Your task to perform on an android device: open a new tab in the chrome app Image 0: 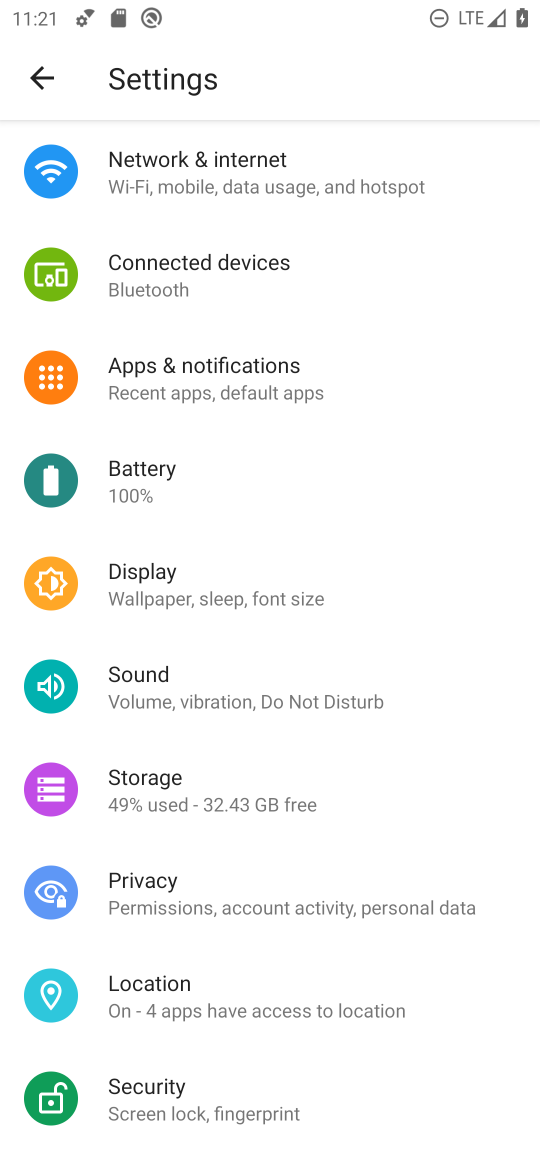
Step 0: press home button
Your task to perform on an android device: open a new tab in the chrome app Image 1: 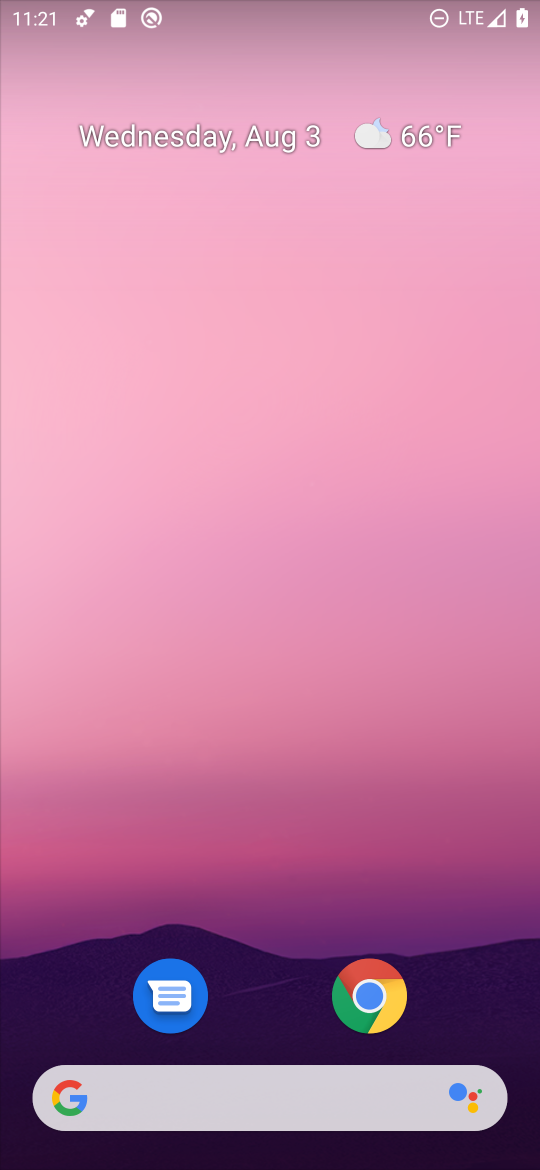
Step 1: click (369, 994)
Your task to perform on an android device: open a new tab in the chrome app Image 2: 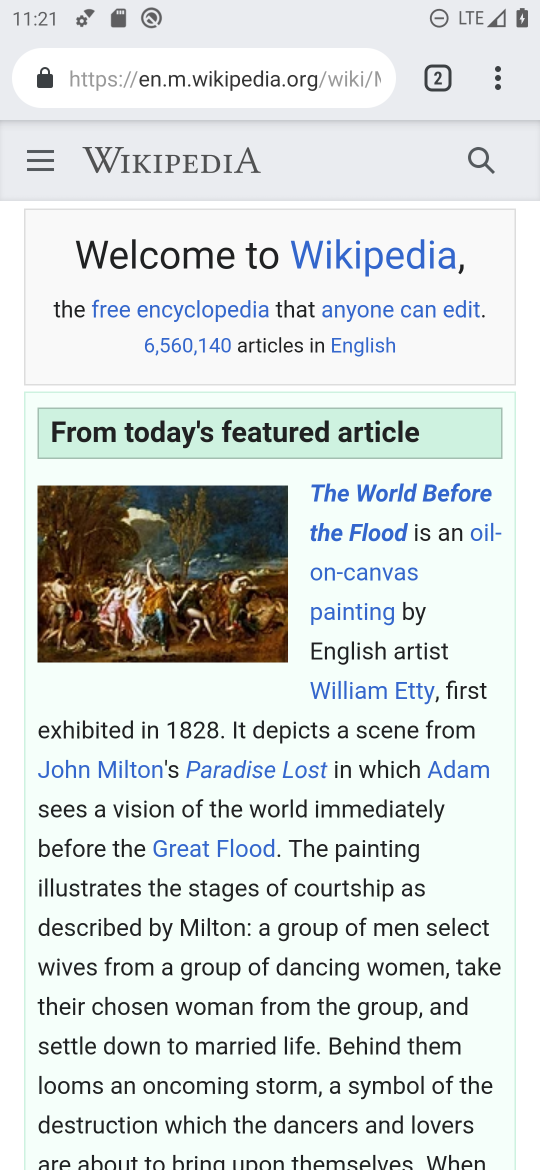
Step 2: click (491, 73)
Your task to perform on an android device: open a new tab in the chrome app Image 3: 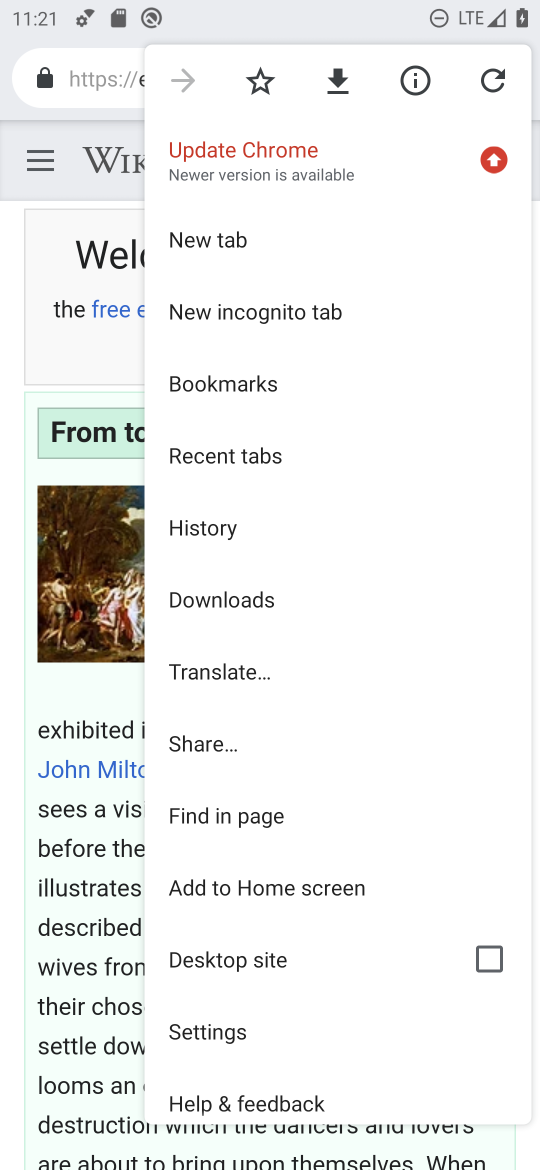
Step 3: click (238, 230)
Your task to perform on an android device: open a new tab in the chrome app Image 4: 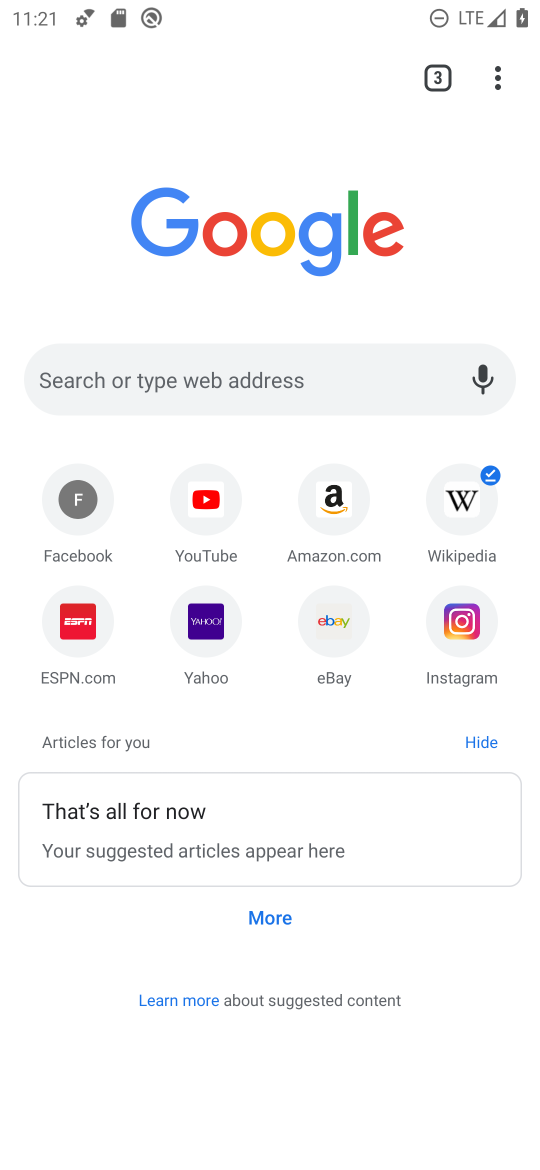
Step 4: task complete